Your task to perform on an android device: Open Google Chrome and open the bookmarks view Image 0: 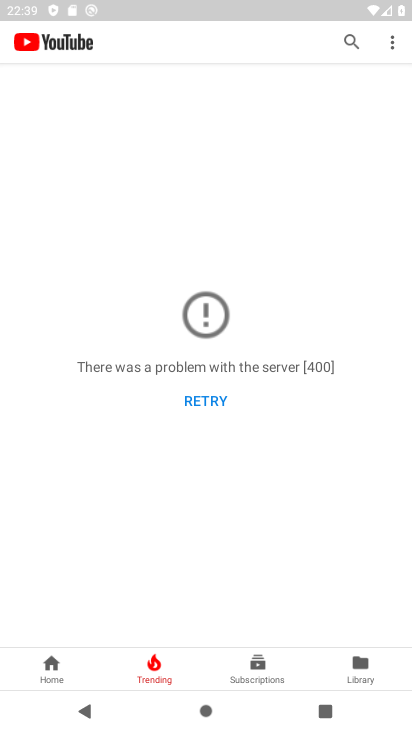
Step 0: press home button
Your task to perform on an android device: Open Google Chrome and open the bookmarks view Image 1: 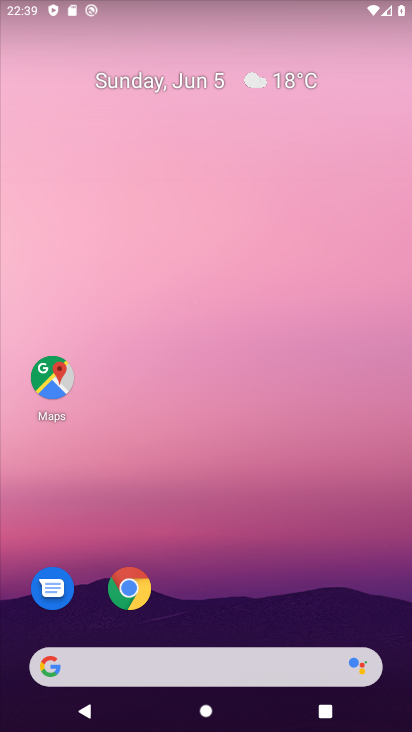
Step 1: drag from (342, 566) to (351, 123)
Your task to perform on an android device: Open Google Chrome and open the bookmarks view Image 2: 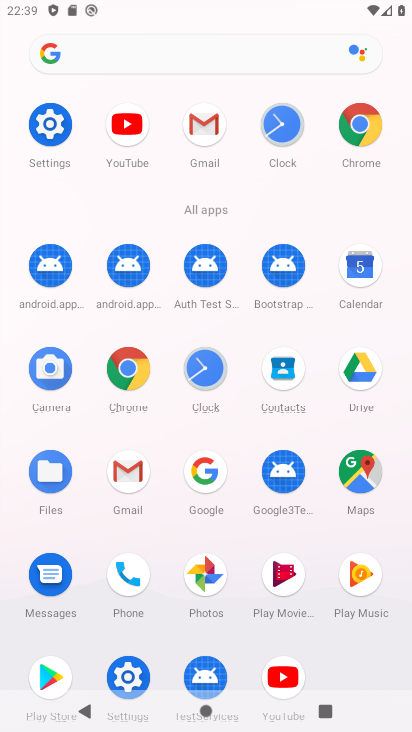
Step 2: click (130, 371)
Your task to perform on an android device: Open Google Chrome and open the bookmarks view Image 3: 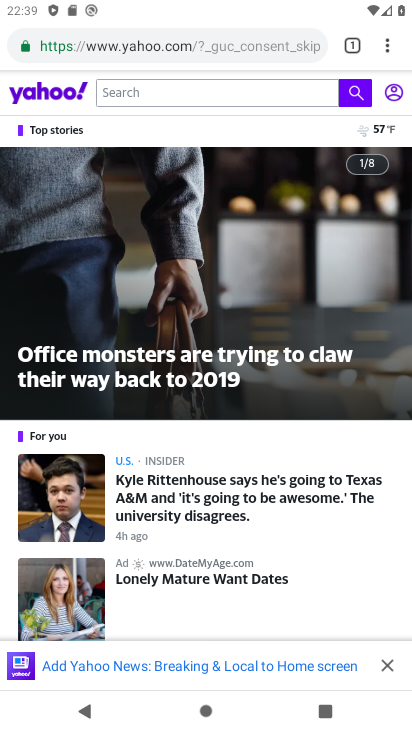
Step 3: task complete